Your task to perform on an android device: Add "macbook pro" to the cart on bestbuy, then select checkout. Image 0: 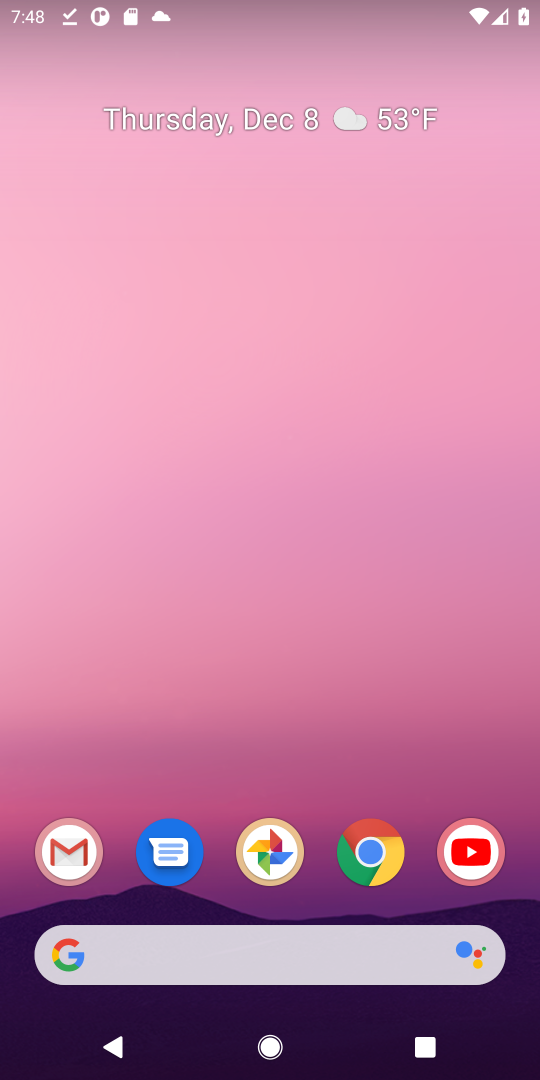
Step 0: click (165, 969)
Your task to perform on an android device: Add "macbook pro" to the cart on bestbuy, then select checkout. Image 1: 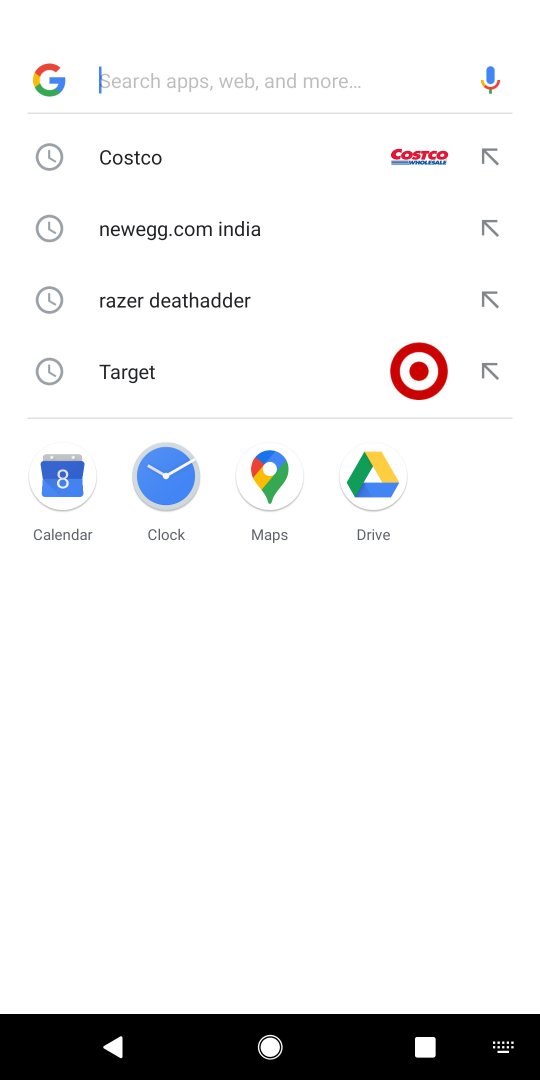
Step 1: type "bestbuy"
Your task to perform on an android device: Add "macbook pro" to the cart on bestbuy, then select checkout. Image 2: 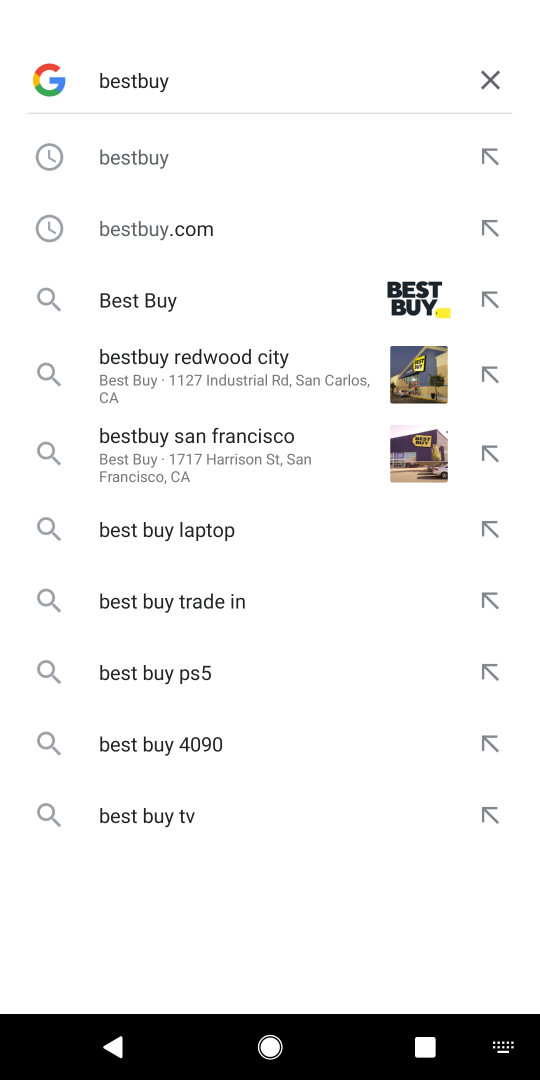
Step 2: click (261, 312)
Your task to perform on an android device: Add "macbook pro" to the cart on bestbuy, then select checkout. Image 3: 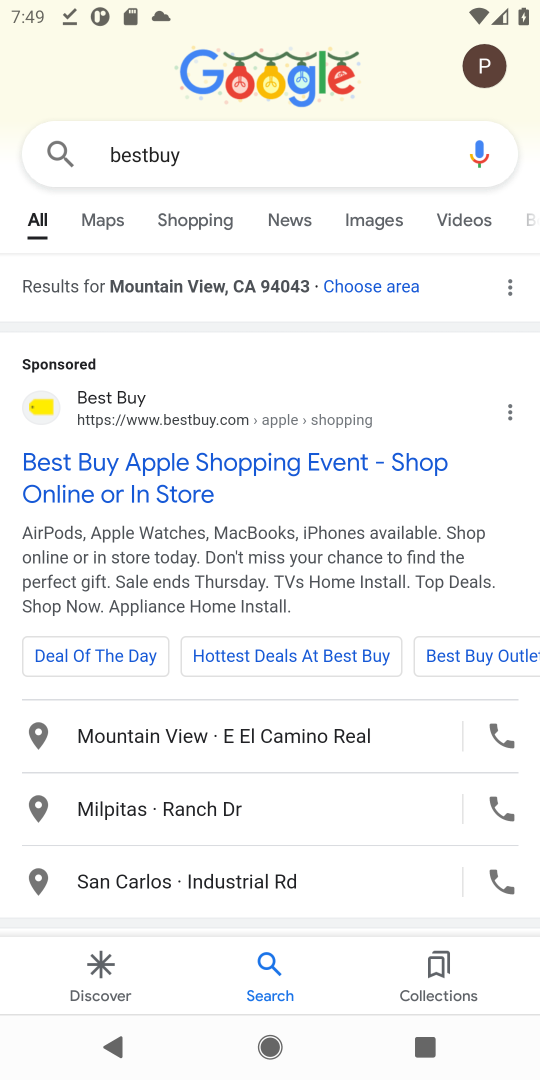
Step 3: click (134, 506)
Your task to perform on an android device: Add "macbook pro" to the cart on bestbuy, then select checkout. Image 4: 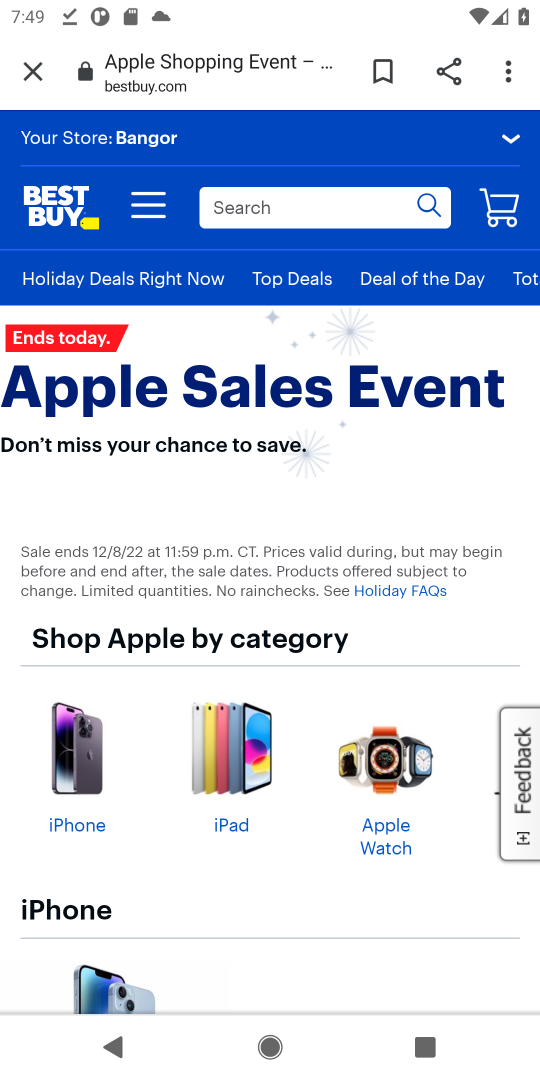
Step 4: task complete